Your task to perform on an android device: Open settings Image 0: 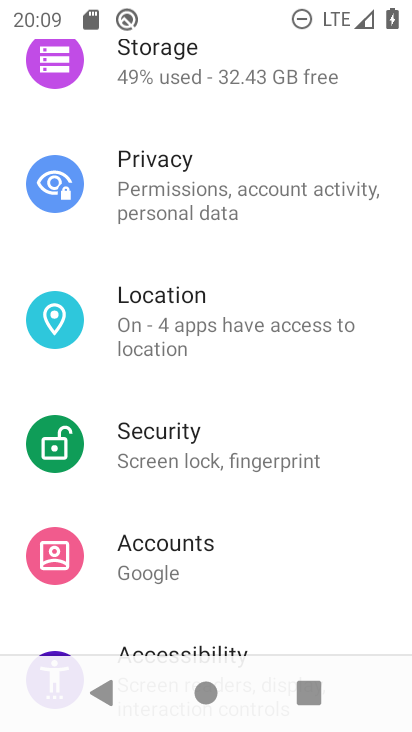
Step 0: press home button
Your task to perform on an android device: Open settings Image 1: 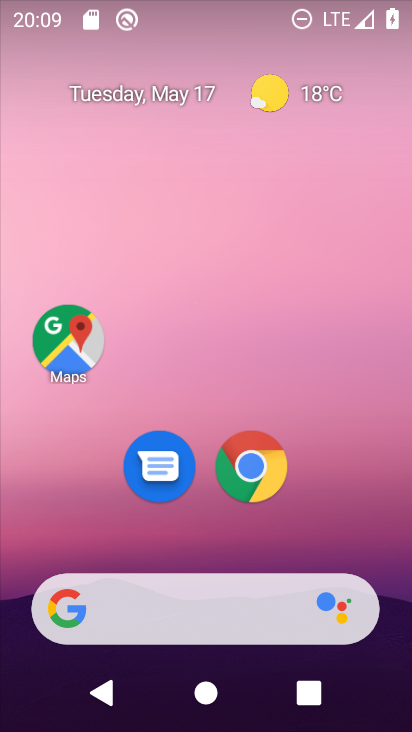
Step 1: drag from (205, 605) to (326, 146)
Your task to perform on an android device: Open settings Image 2: 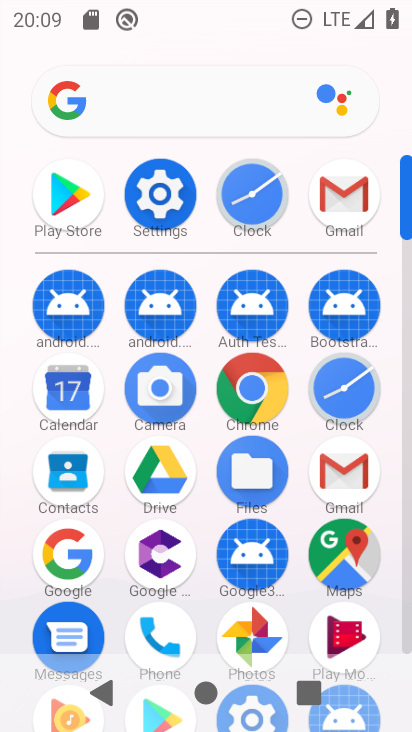
Step 2: click (164, 201)
Your task to perform on an android device: Open settings Image 3: 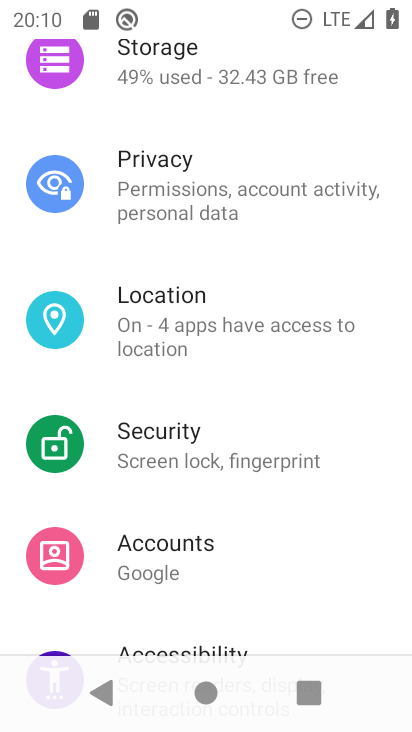
Step 3: task complete